Your task to perform on an android device: check storage Image 0: 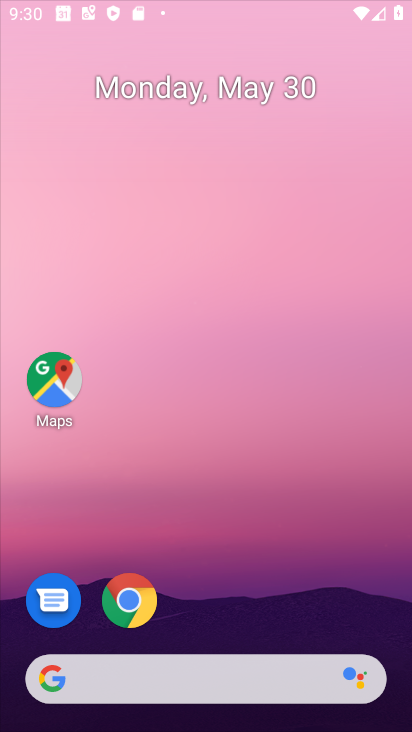
Step 0: press home button
Your task to perform on an android device: check storage Image 1: 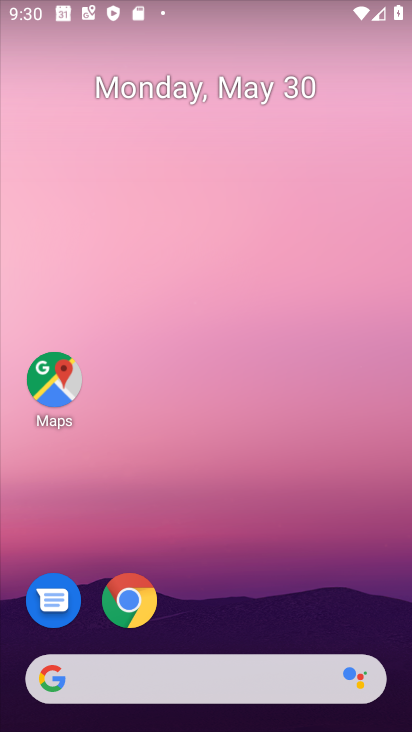
Step 1: drag from (205, 621) to (188, 54)
Your task to perform on an android device: check storage Image 2: 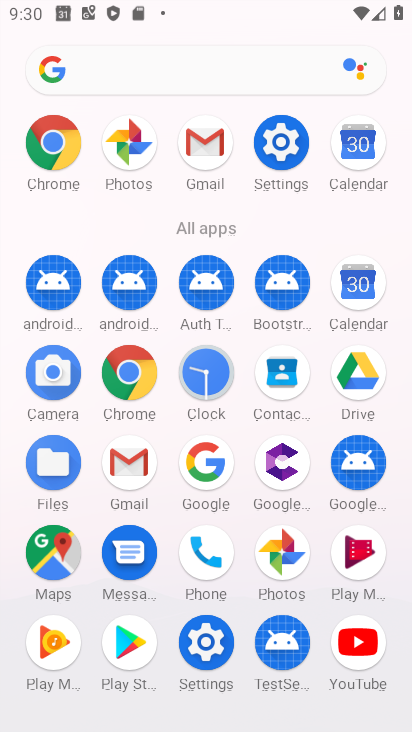
Step 2: click (279, 143)
Your task to perform on an android device: check storage Image 3: 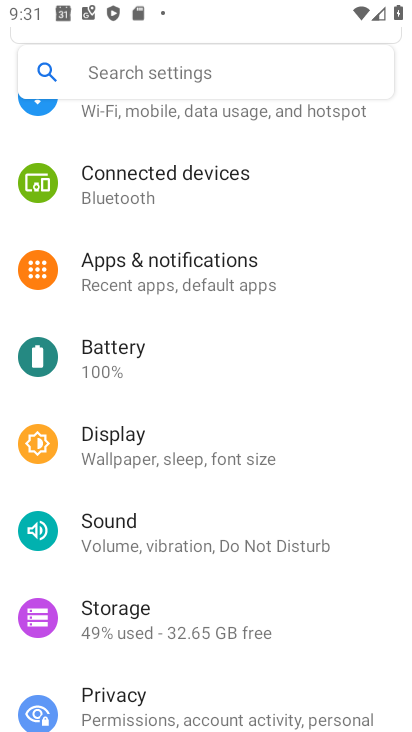
Step 3: click (111, 606)
Your task to perform on an android device: check storage Image 4: 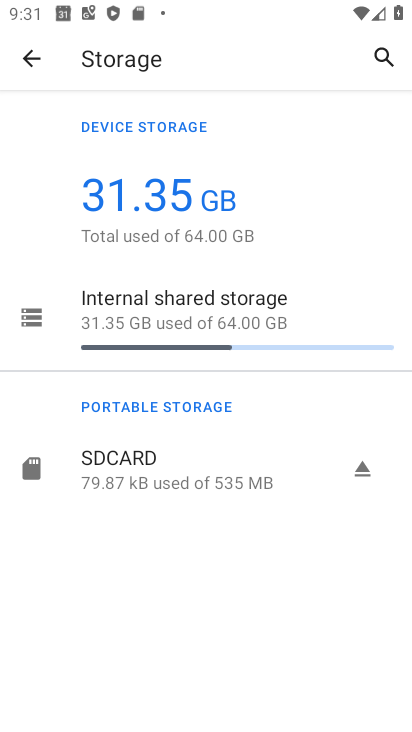
Step 4: task complete